Your task to perform on an android device: Show me productivity apps on the Play Store Image 0: 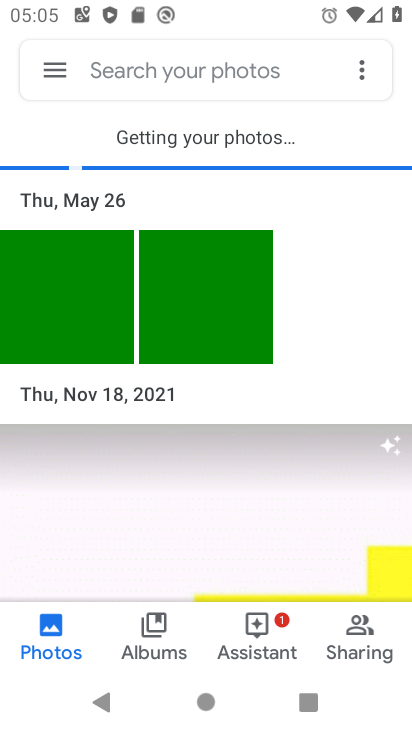
Step 0: press home button
Your task to perform on an android device: Show me productivity apps on the Play Store Image 1: 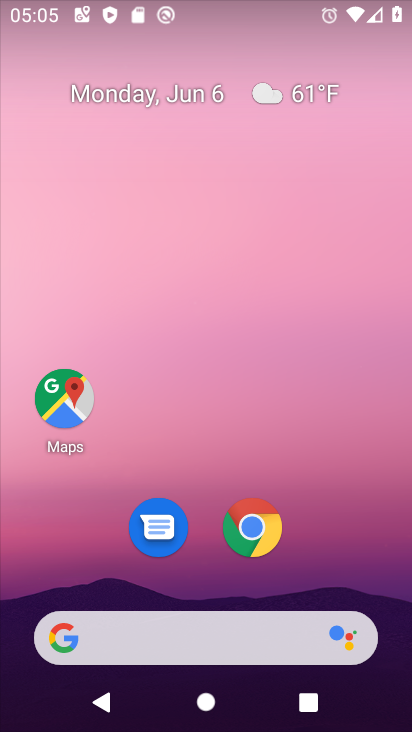
Step 1: drag from (393, 698) to (266, 122)
Your task to perform on an android device: Show me productivity apps on the Play Store Image 2: 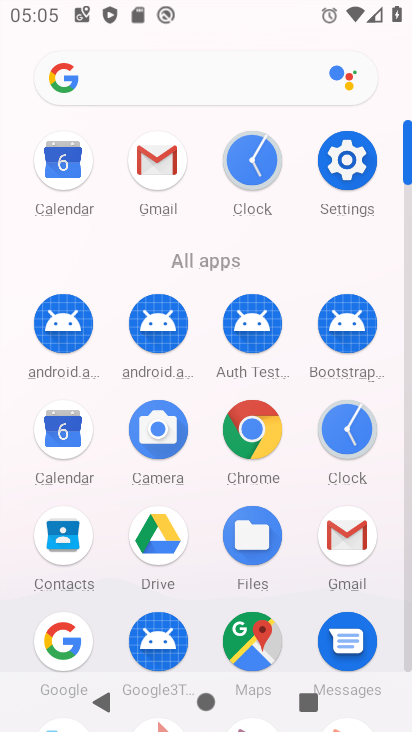
Step 2: drag from (198, 595) to (171, 192)
Your task to perform on an android device: Show me productivity apps on the Play Store Image 3: 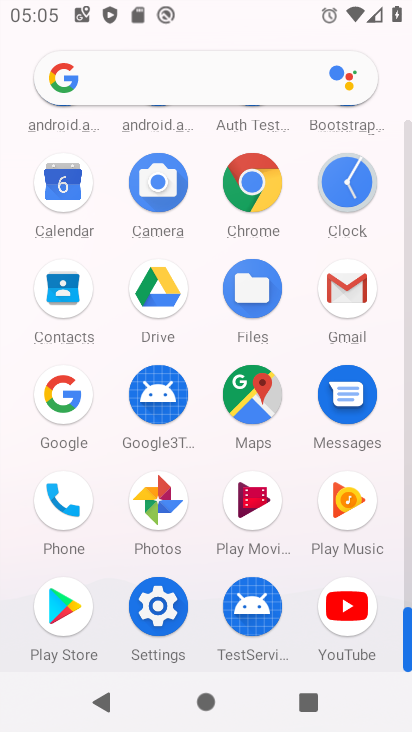
Step 3: drag from (211, 580) to (208, 247)
Your task to perform on an android device: Show me productivity apps on the Play Store Image 4: 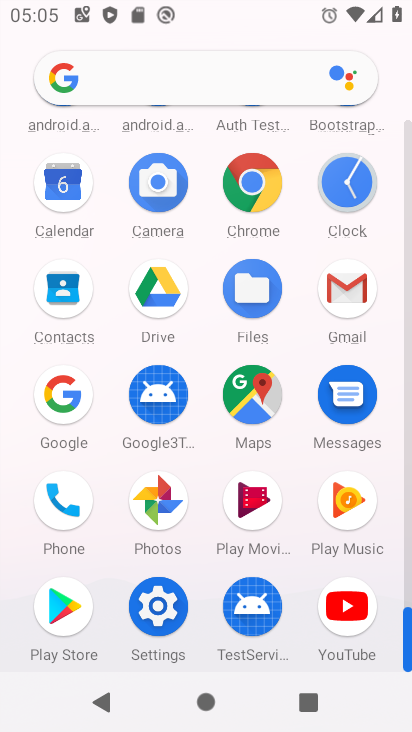
Step 4: click (63, 616)
Your task to perform on an android device: Show me productivity apps on the Play Store Image 5: 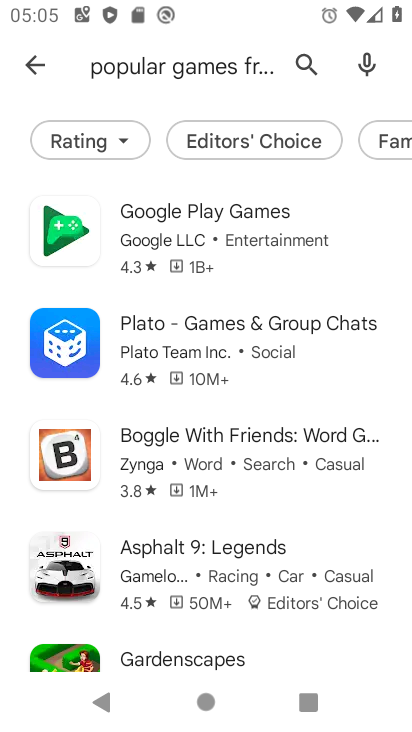
Step 5: click (299, 59)
Your task to perform on an android device: Show me productivity apps on the Play Store Image 6: 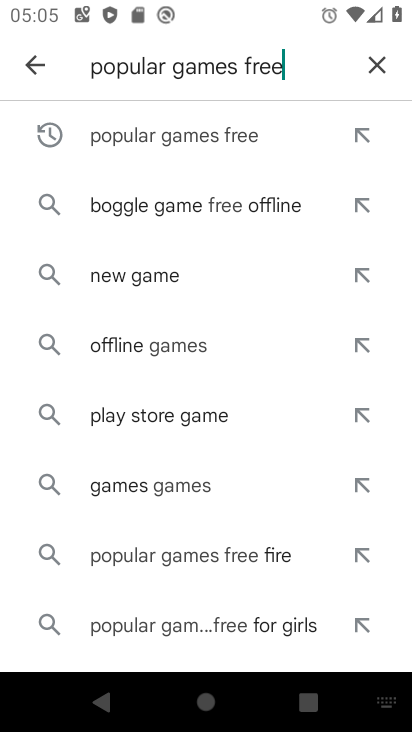
Step 6: click (371, 60)
Your task to perform on an android device: Show me productivity apps on the Play Store Image 7: 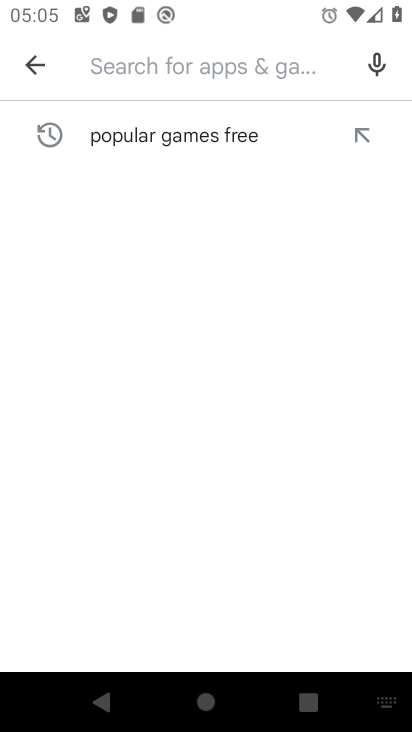
Step 7: type "productivity apps"
Your task to perform on an android device: Show me productivity apps on the Play Store Image 8: 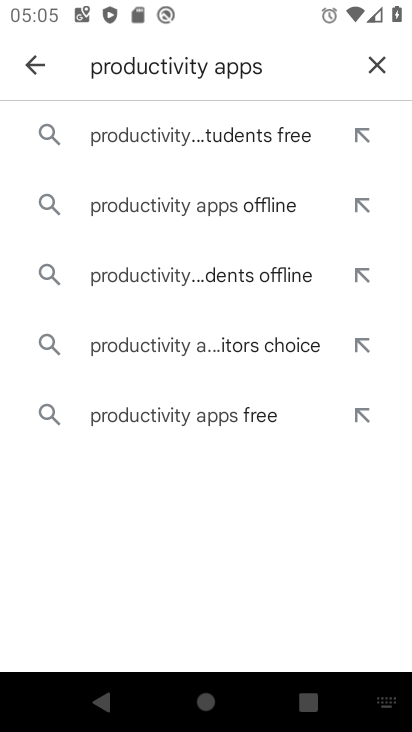
Step 8: click (176, 135)
Your task to perform on an android device: Show me productivity apps on the Play Store Image 9: 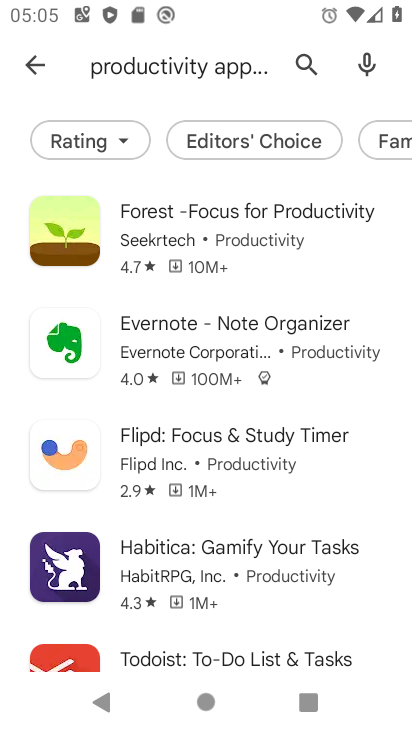
Step 9: task complete